Your task to perform on an android device: What's on my calendar tomorrow? Image 0: 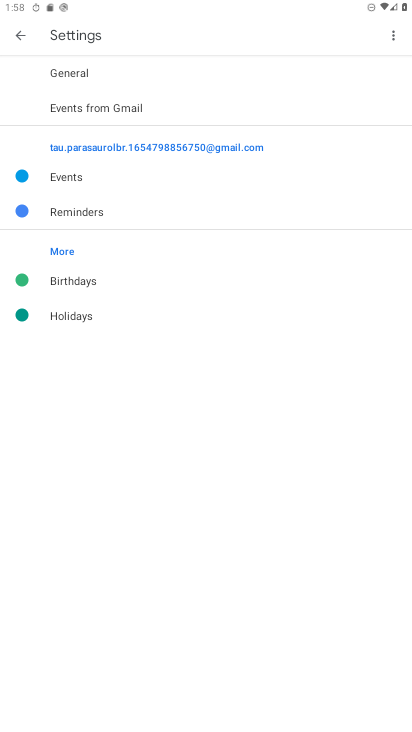
Step 0: press home button
Your task to perform on an android device: What's on my calendar tomorrow? Image 1: 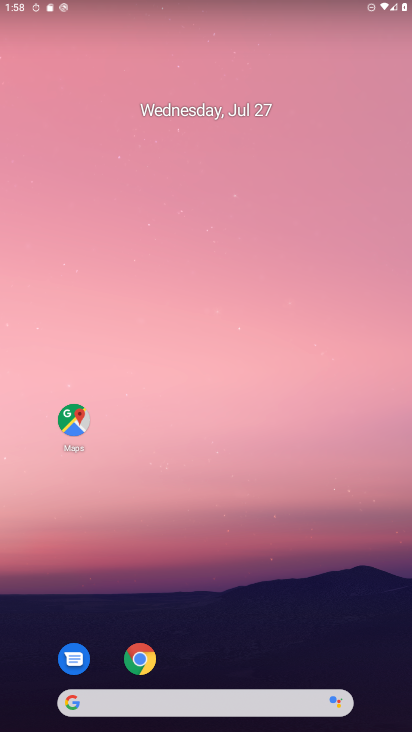
Step 1: drag from (281, 616) to (111, 137)
Your task to perform on an android device: What's on my calendar tomorrow? Image 2: 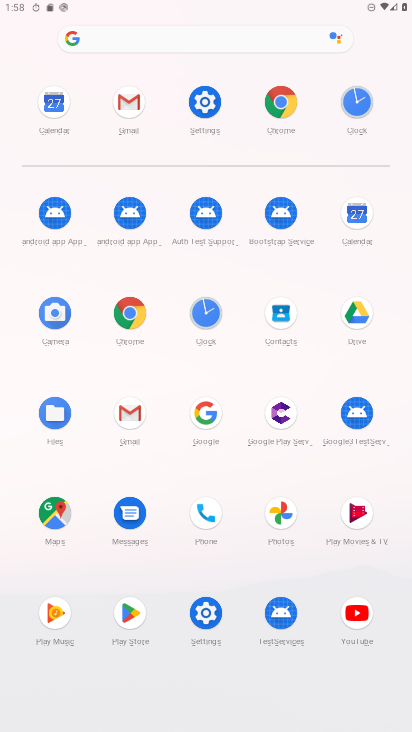
Step 2: click (358, 204)
Your task to perform on an android device: What's on my calendar tomorrow? Image 3: 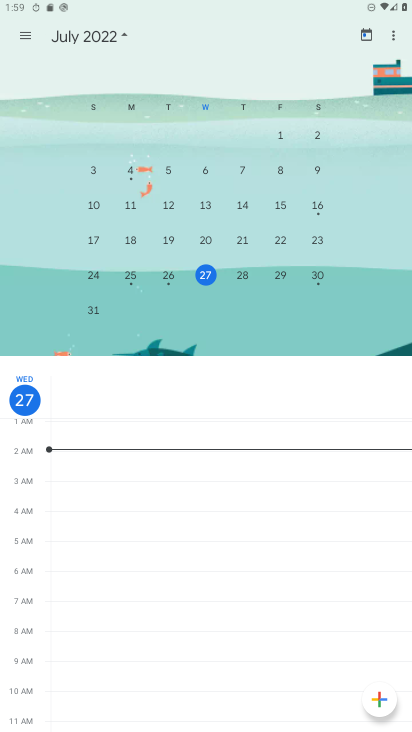
Step 3: click (237, 281)
Your task to perform on an android device: What's on my calendar tomorrow? Image 4: 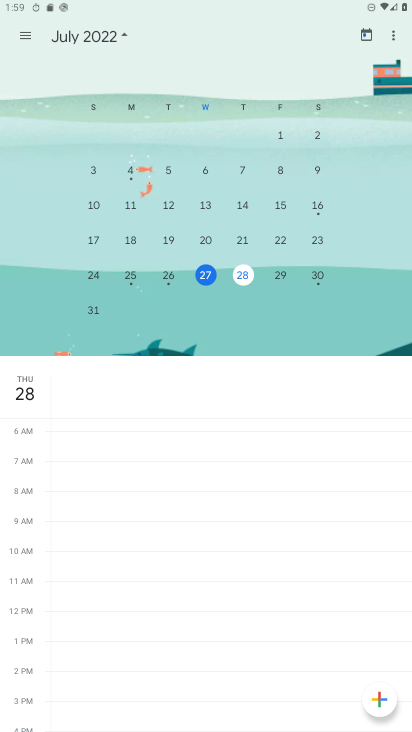
Step 4: task complete